Your task to perform on an android device: Go to CNN.com Image 0: 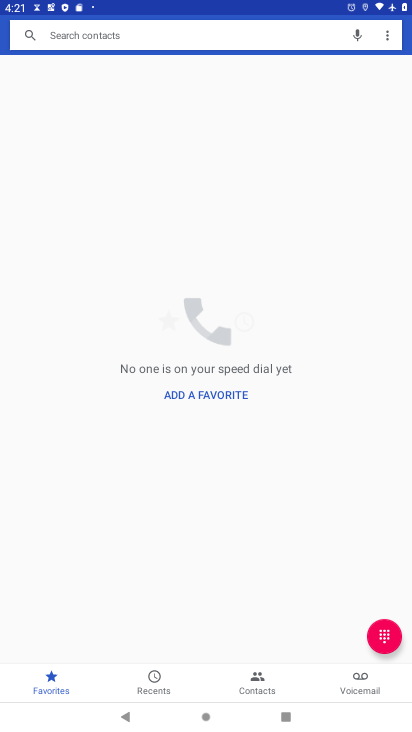
Step 0: press back button
Your task to perform on an android device: Go to CNN.com Image 1: 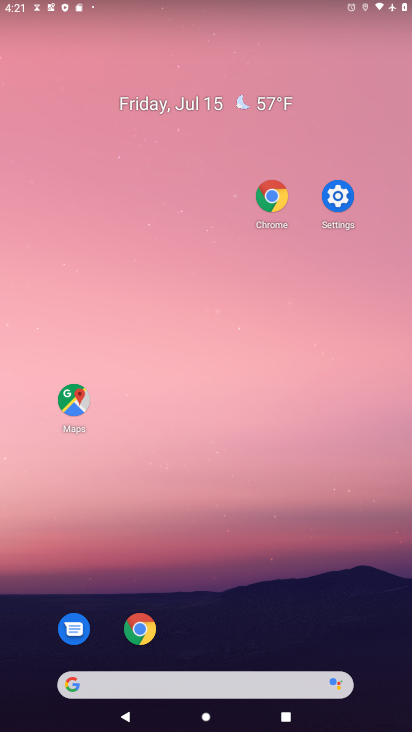
Step 1: drag from (269, 581) to (250, 281)
Your task to perform on an android device: Go to CNN.com Image 2: 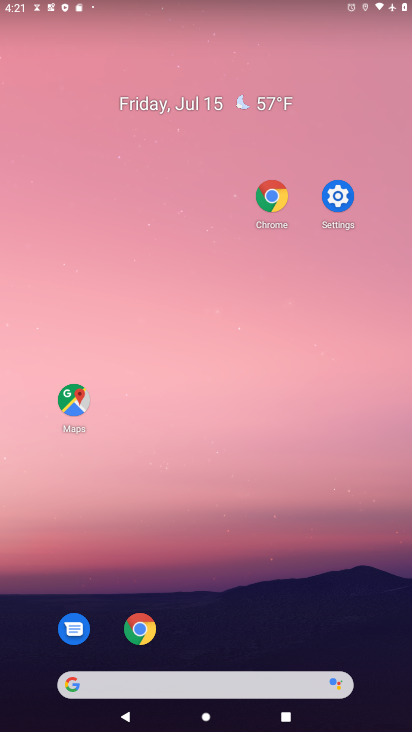
Step 2: drag from (215, 656) to (216, 152)
Your task to perform on an android device: Go to CNN.com Image 3: 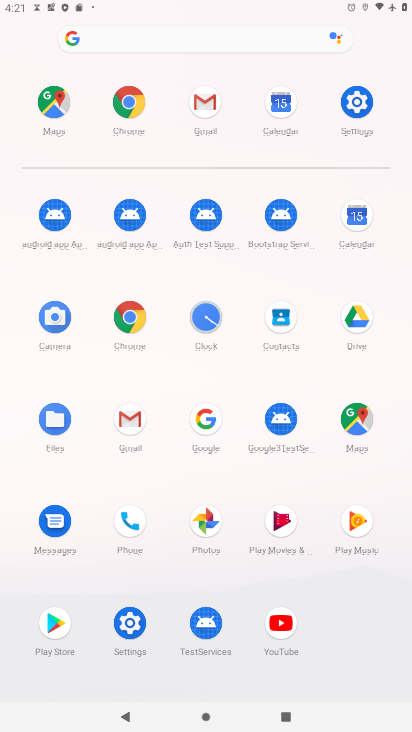
Step 3: drag from (248, 492) to (214, 195)
Your task to perform on an android device: Go to CNN.com Image 4: 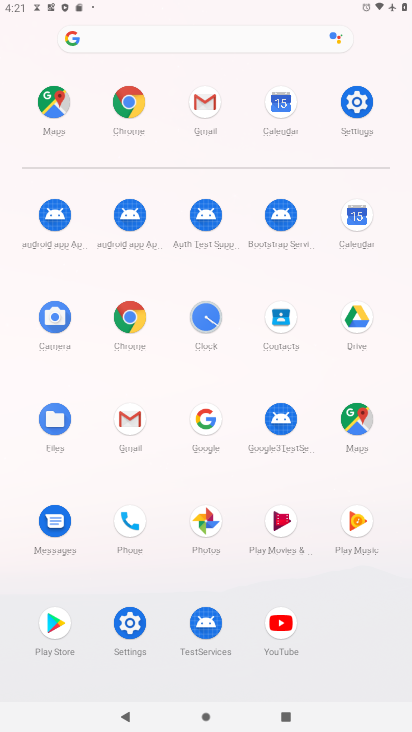
Step 4: click (126, 637)
Your task to perform on an android device: Go to CNN.com Image 5: 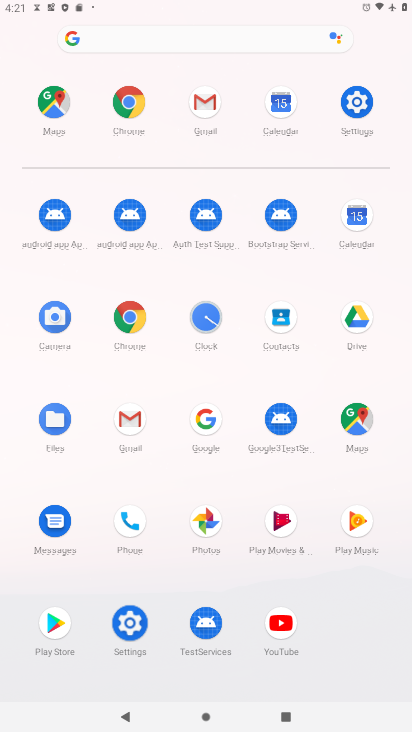
Step 5: click (126, 637)
Your task to perform on an android device: Go to CNN.com Image 6: 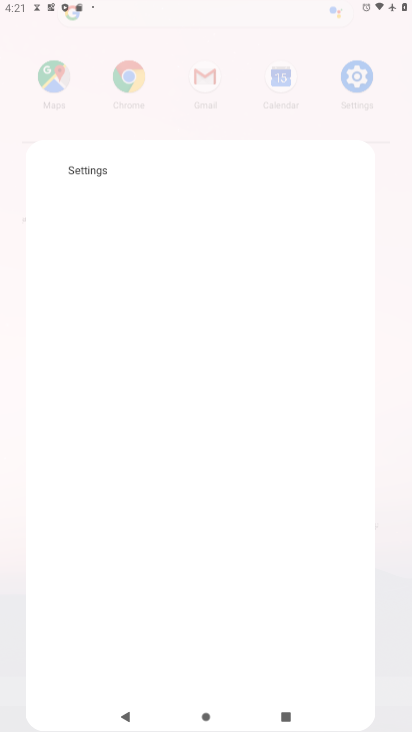
Step 6: click (126, 637)
Your task to perform on an android device: Go to CNN.com Image 7: 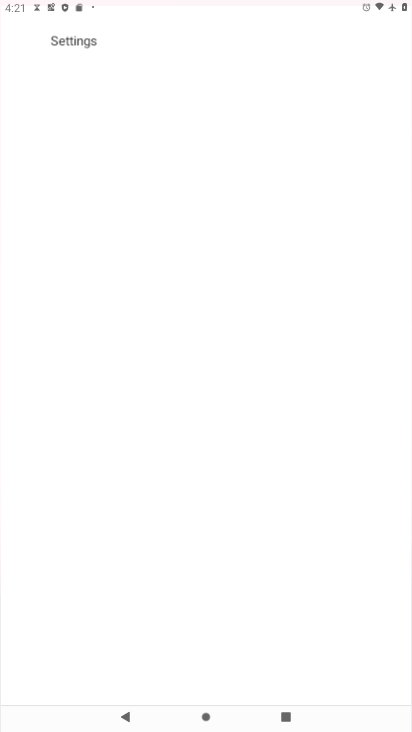
Step 7: click (126, 637)
Your task to perform on an android device: Go to CNN.com Image 8: 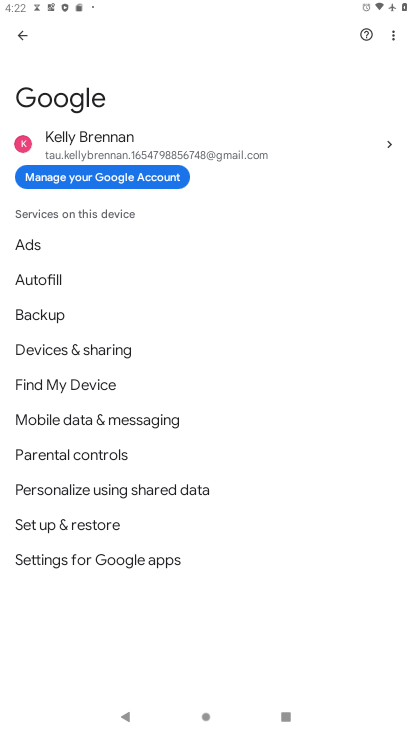
Step 8: press back button
Your task to perform on an android device: Go to CNN.com Image 9: 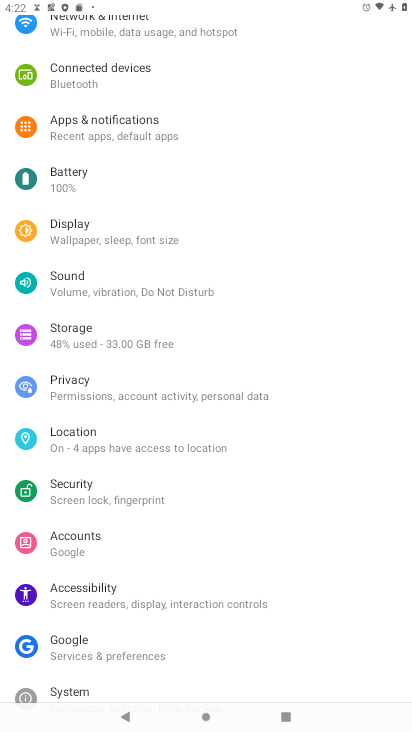
Step 9: drag from (142, 562) to (154, 158)
Your task to perform on an android device: Go to CNN.com Image 10: 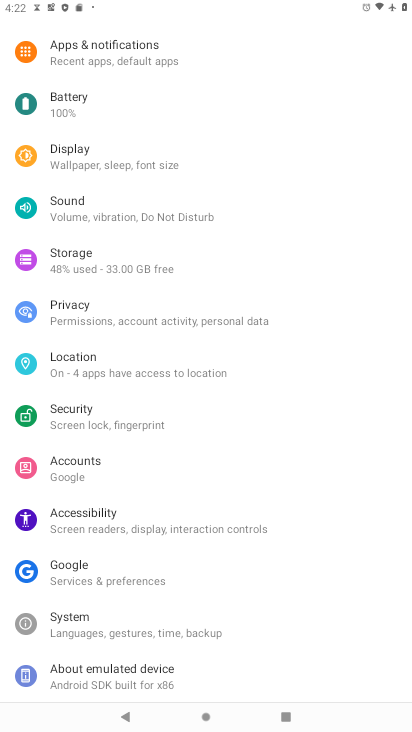
Step 10: drag from (80, 176) to (123, 566)
Your task to perform on an android device: Go to CNN.com Image 11: 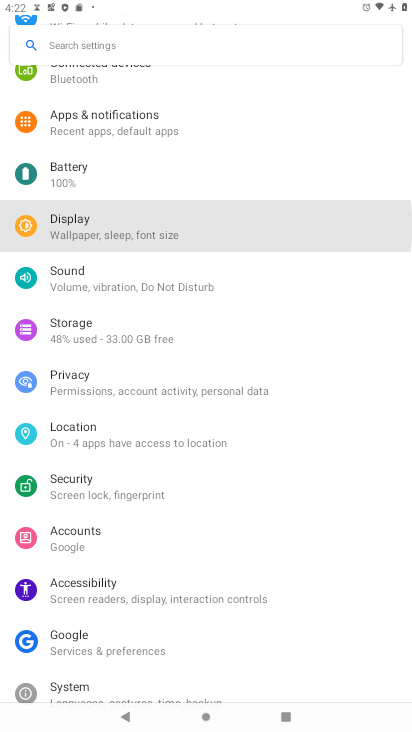
Step 11: drag from (123, 224) to (153, 481)
Your task to perform on an android device: Go to CNN.com Image 12: 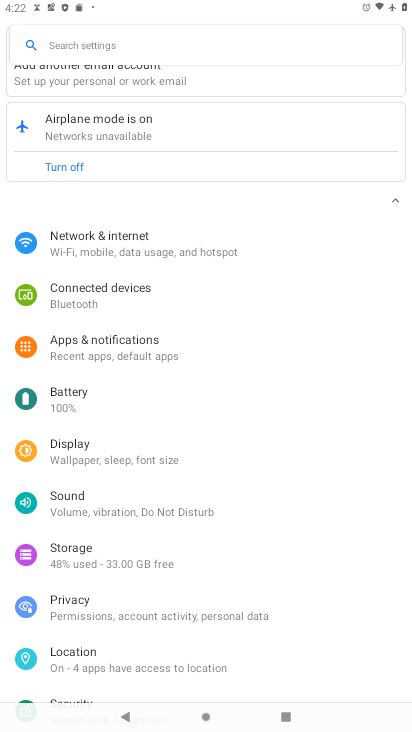
Step 12: press home button
Your task to perform on an android device: Go to CNN.com Image 13: 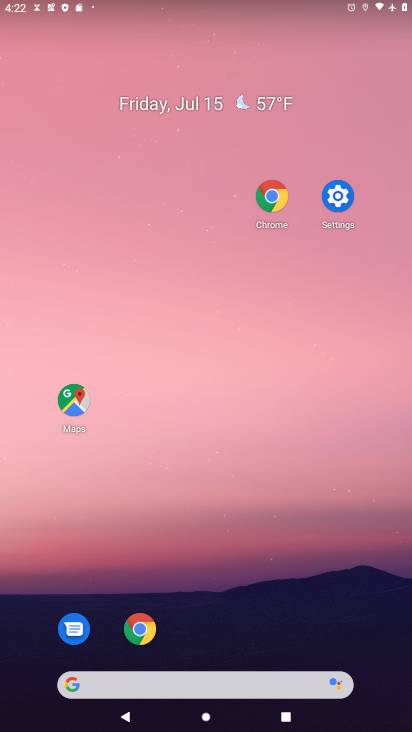
Step 13: drag from (228, 629) to (223, 182)
Your task to perform on an android device: Go to CNN.com Image 14: 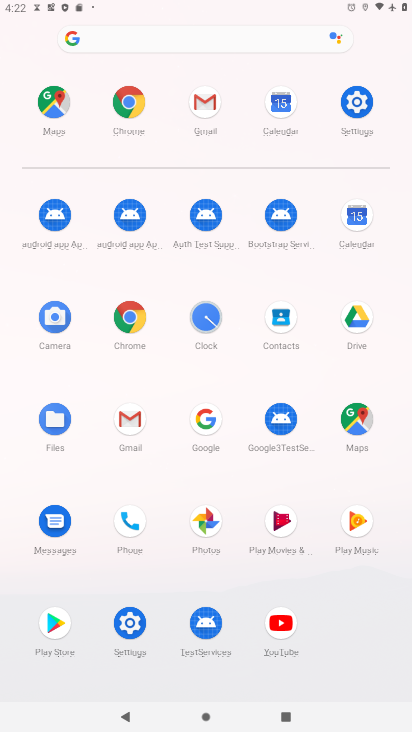
Step 14: drag from (228, 511) to (221, 284)
Your task to perform on an android device: Go to CNN.com Image 15: 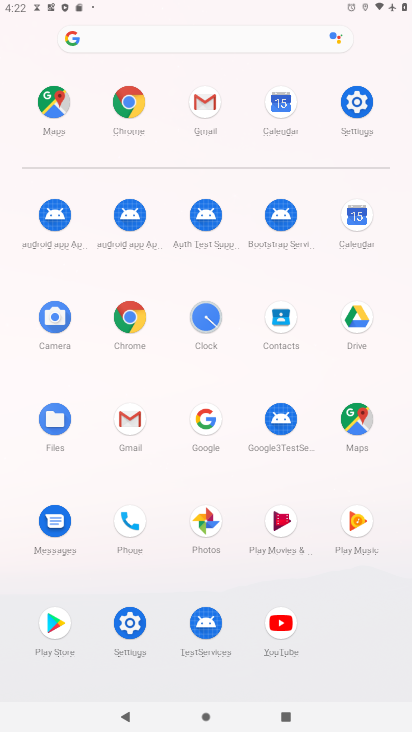
Step 15: click (127, 325)
Your task to perform on an android device: Go to CNN.com Image 16: 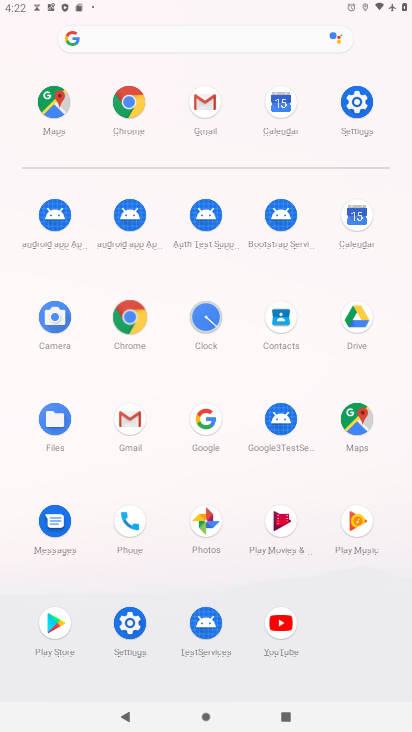
Step 16: click (126, 324)
Your task to perform on an android device: Go to CNN.com Image 17: 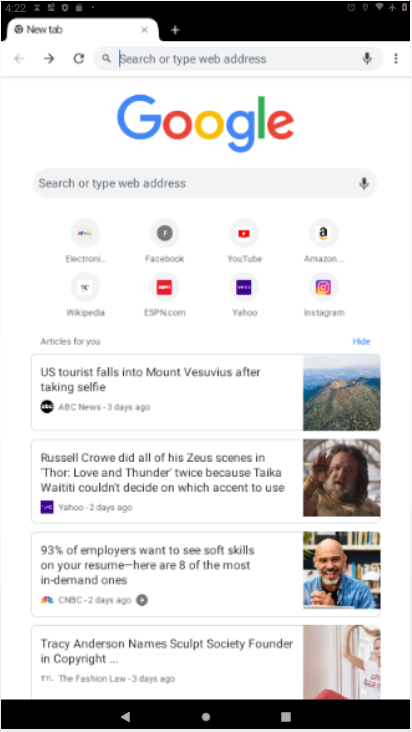
Step 17: click (126, 324)
Your task to perform on an android device: Go to CNN.com Image 18: 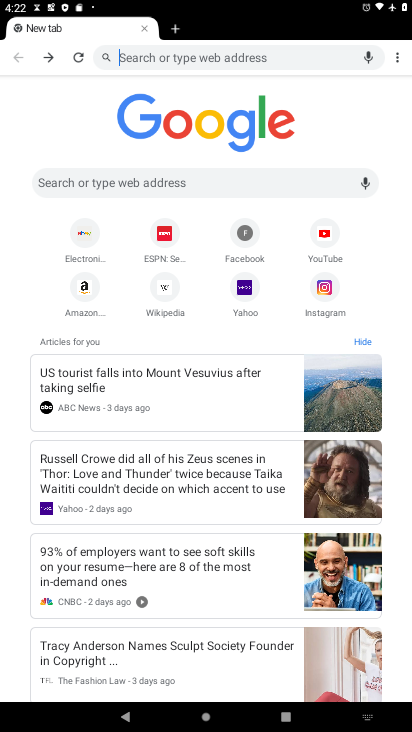
Step 18: click (88, 198)
Your task to perform on an android device: Go to CNN.com Image 19: 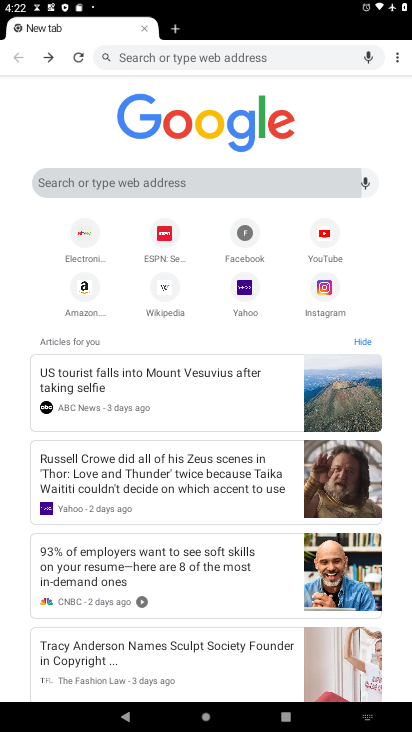
Step 19: click (79, 188)
Your task to perform on an android device: Go to CNN.com Image 20: 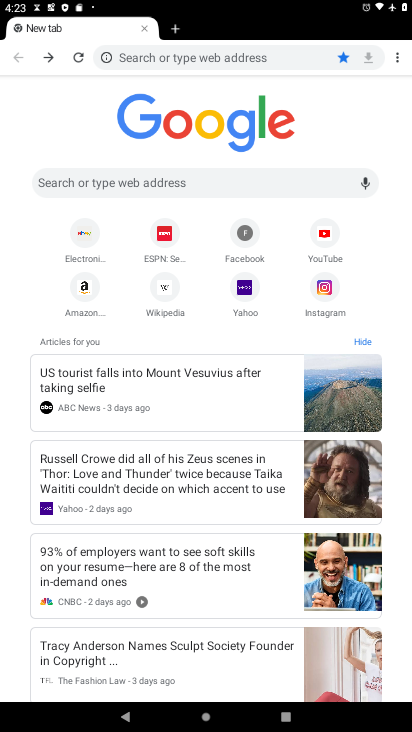
Step 20: type "CNN.com"
Your task to perform on an android device: Go to CNN.com Image 21: 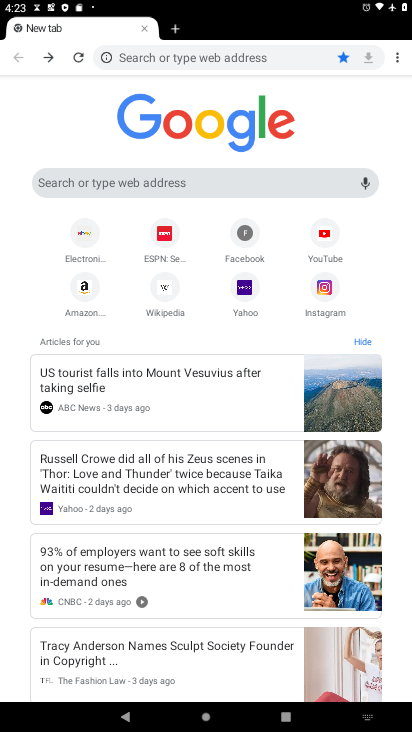
Step 21: task complete